Your task to perform on an android device: turn off airplane mode Image 0: 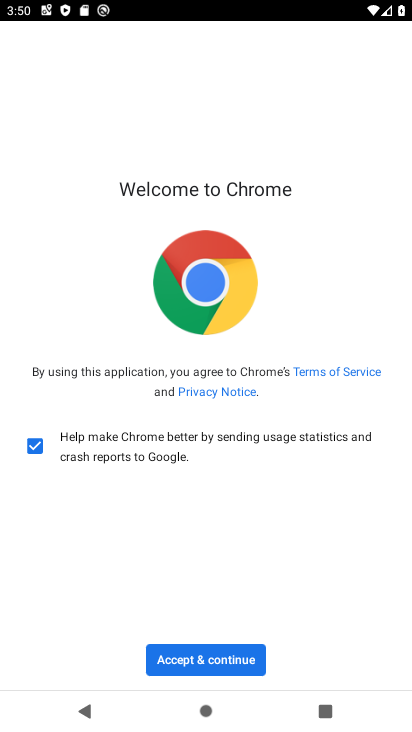
Step 0: press home button
Your task to perform on an android device: turn off airplane mode Image 1: 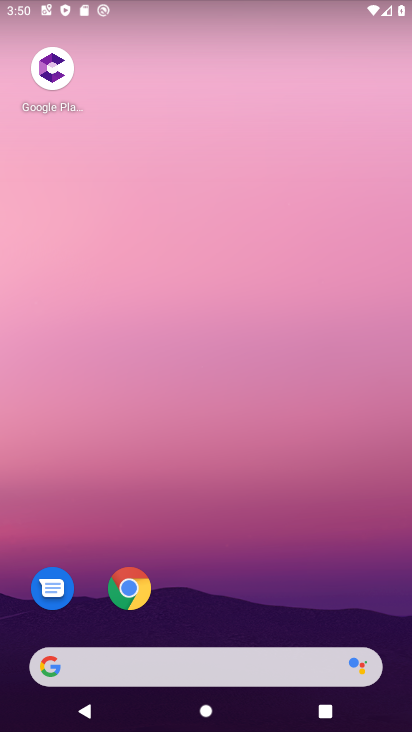
Step 1: task complete